Your task to perform on an android device: Show me the alarms in the clock app Image 0: 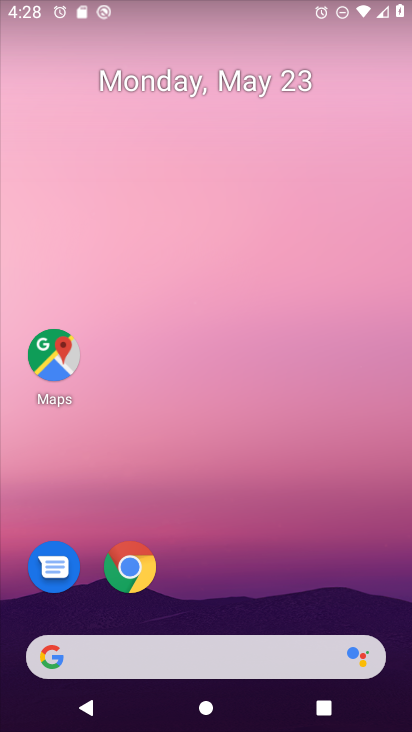
Step 0: drag from (396, 623) to (333, 16)
Your task to perform on an android device: Show me the alarms in the clock app Image 1: 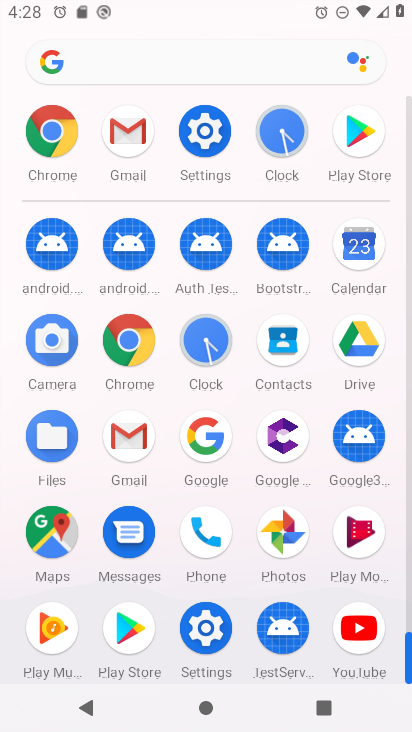
Step 1: click (205, 337)
Your task to perform on an android device: Show me the alarms in the clock app Image 2: 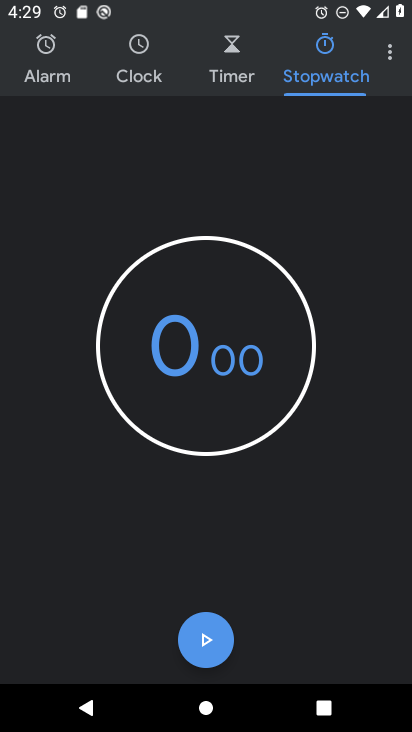
Step 2: click (23, 35)
Your task to perform on an android device: Show me the alarms in the clock app Image 3: 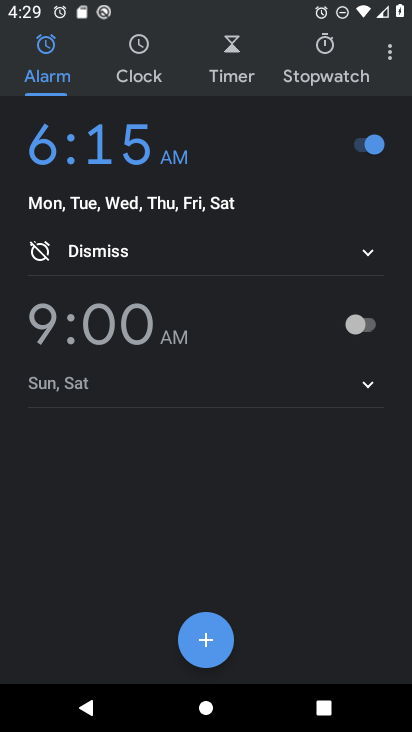
Step 3: task complete